Your task to perform on an android device: open app "Speedtest by Ookla" Image 0: 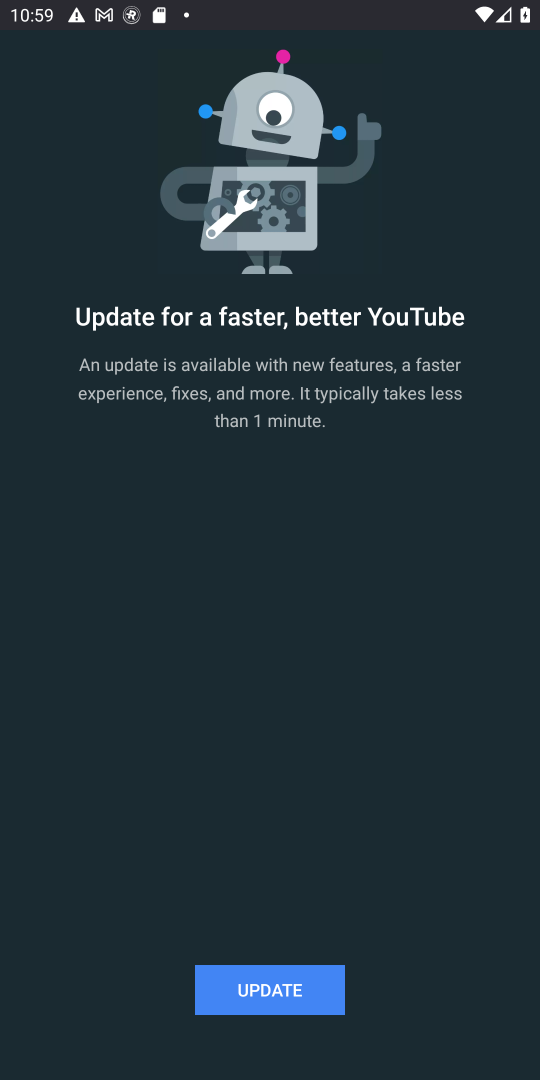
Step 0: press home button
Your task to perform on an android device: open app "Speedtest by Ookla" Image 1: 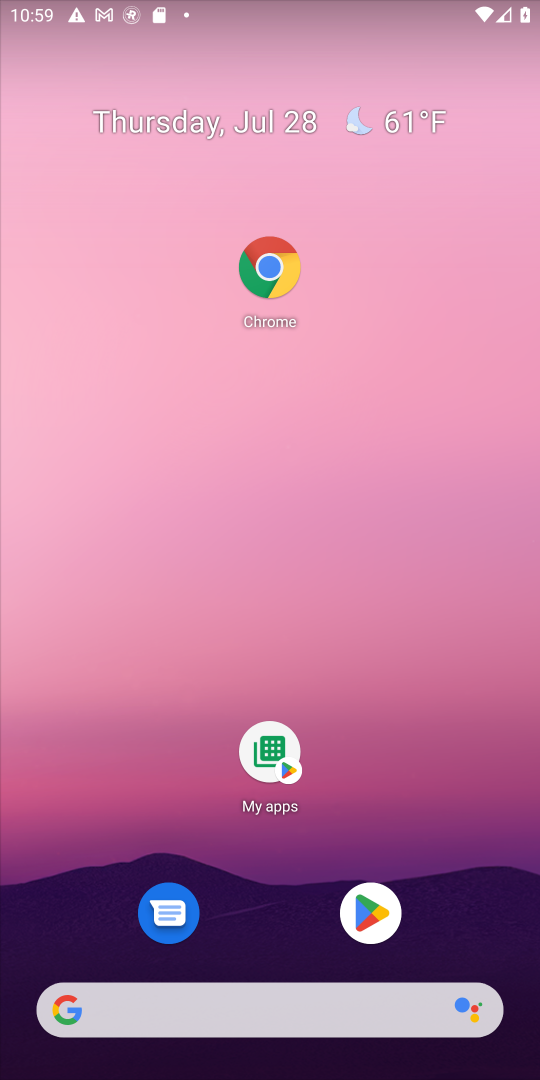
Step 1: click (368, 901)
Your task to perform on an android device: open app "Speedtest by Ookla" Image 2: 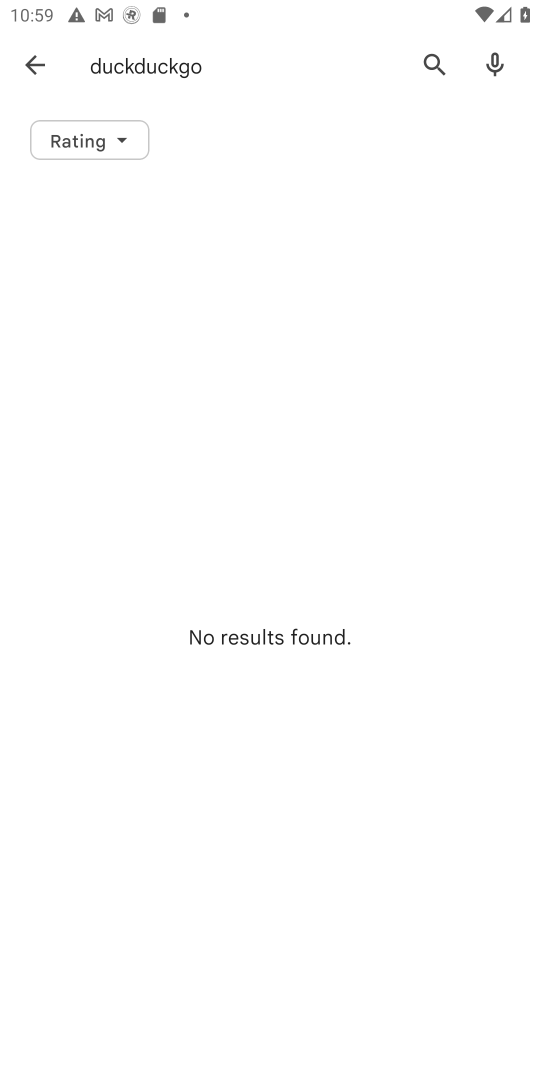
Step 2: click (418, 51)
Your task to perform on an android device: open app "Speedtest by Ookla" Image 3: 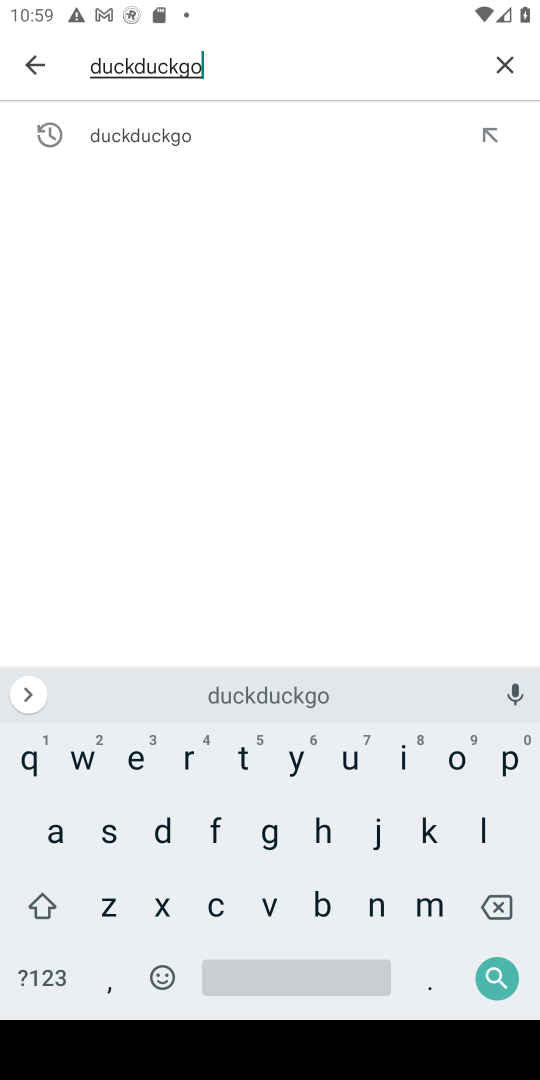
Step 3: click (507, 60)
Your task to perform on an android device: open app "Speedtest by Ookla" Image 4: 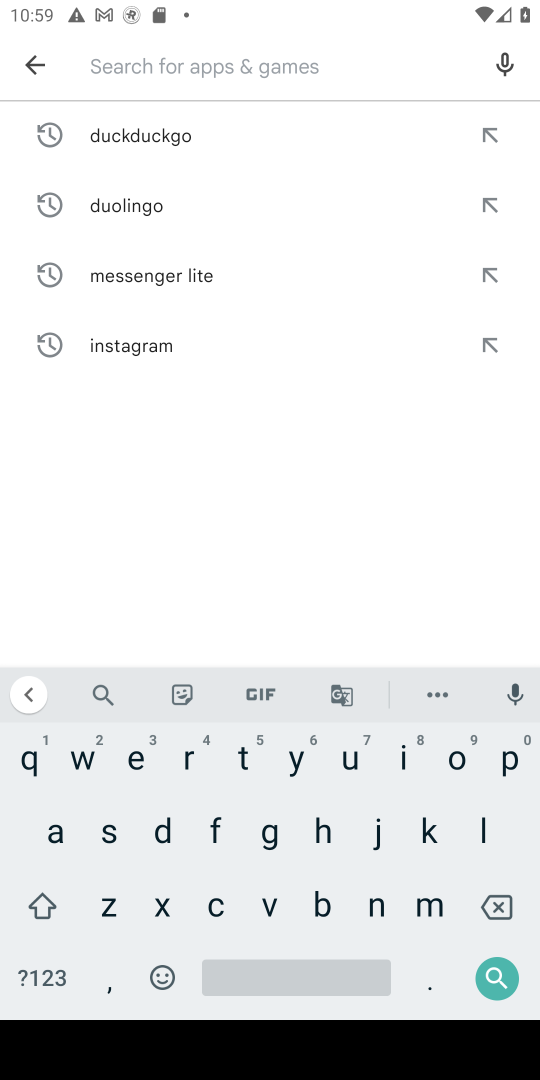
Step 4: click (110, 831)
Your task to perform on an android device: open app "Speedtest by Ookla" Image 5: 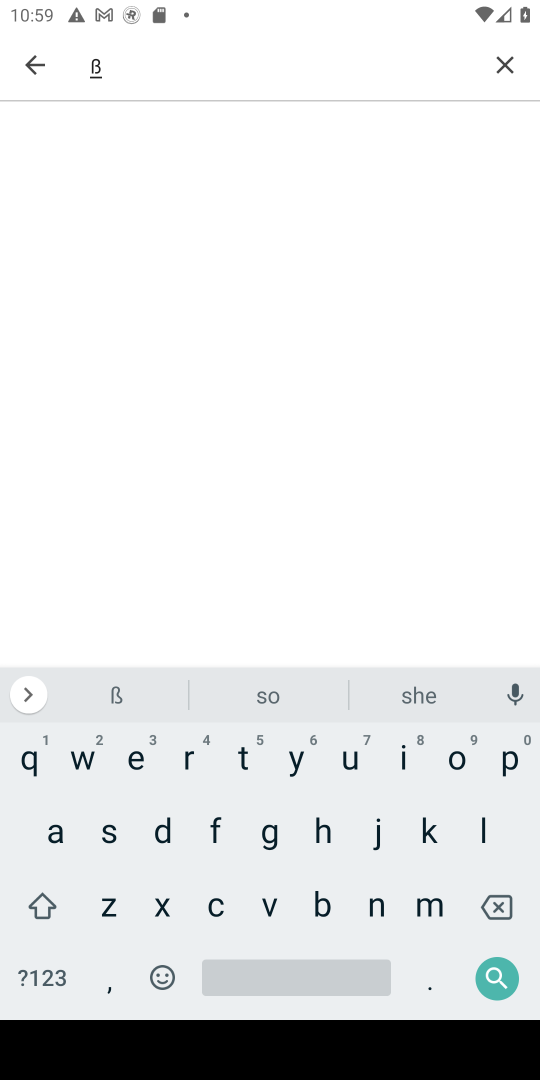
Step 5: click (515, 751)
Your task to perform on an android device: open app "Speedtest by Ookla" Image 6: 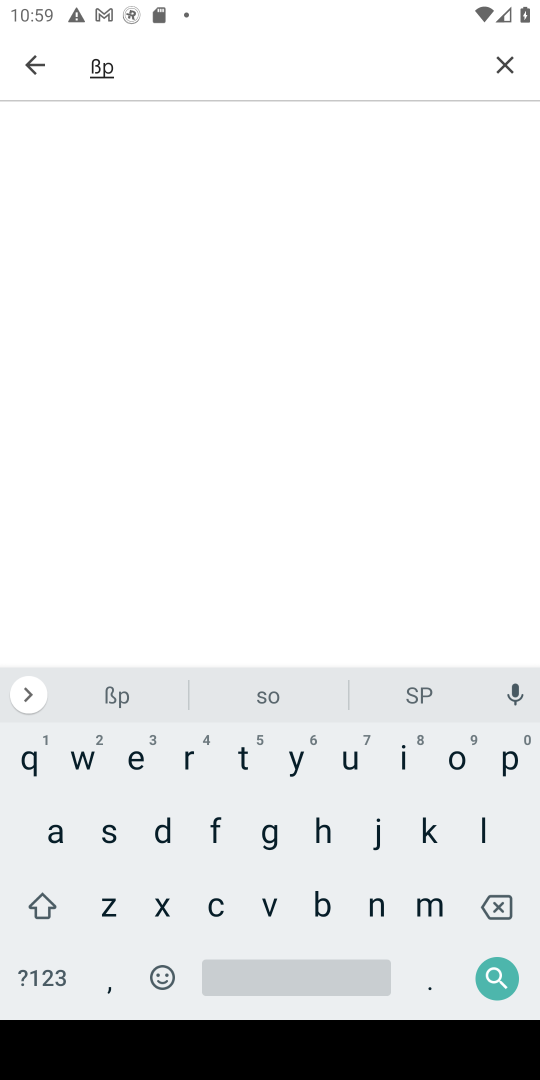
Step 6: click (520, 61)
Your task to perform on an android device: open app "Speedtest by Ookla" Image 7: 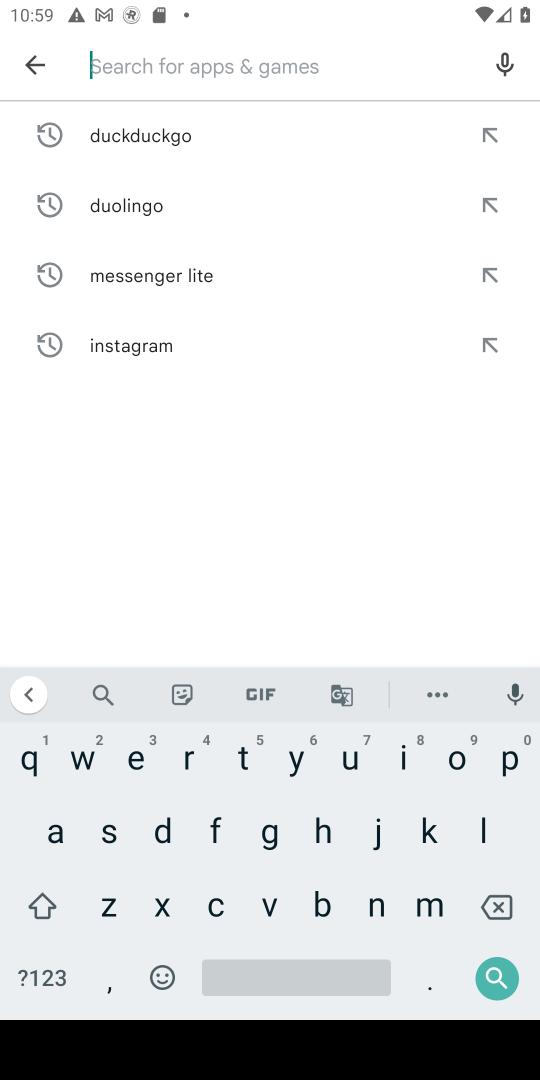
Step 7: type "speedtest"
Your task to perform on an android device: open app "Speedtest by Ookla" Image 8: 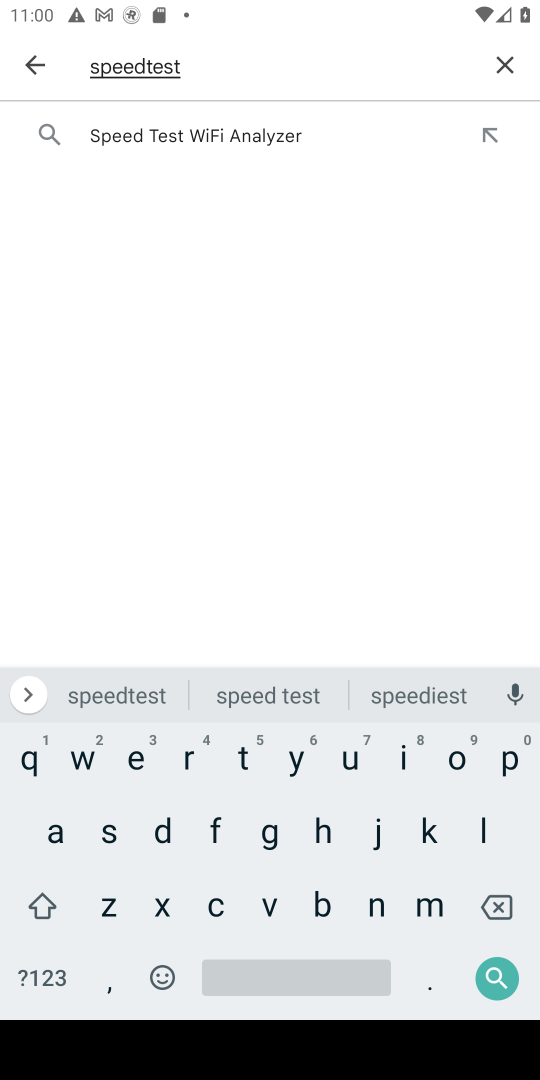
Step 8: click (497, 963)
Your task to perform on an android device: open app "Speedtest by Ookla" Image 9: 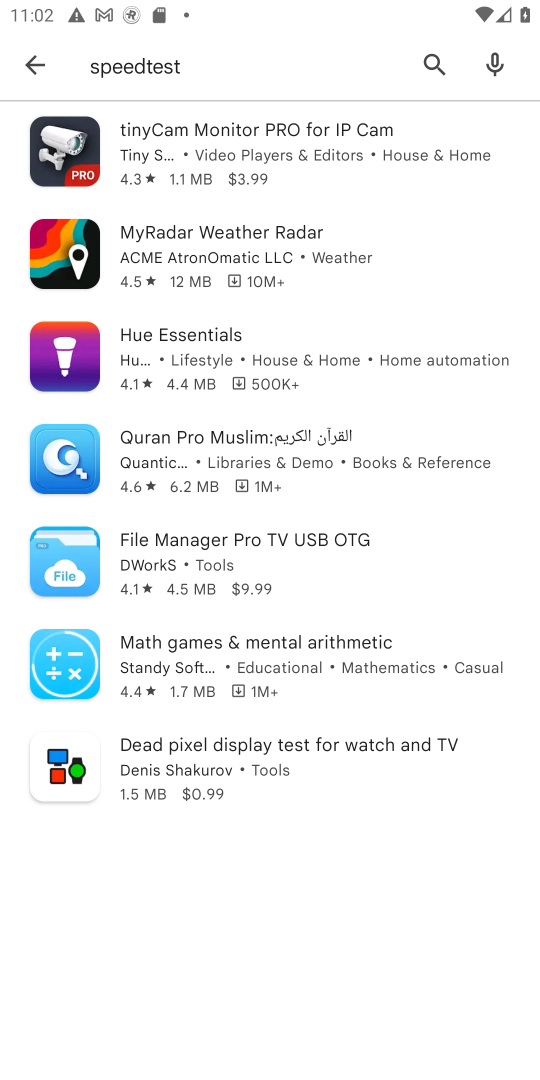
Step 9: task complete